Your task to perform on an android device: Play the last video I watched on Youtube Image 0: 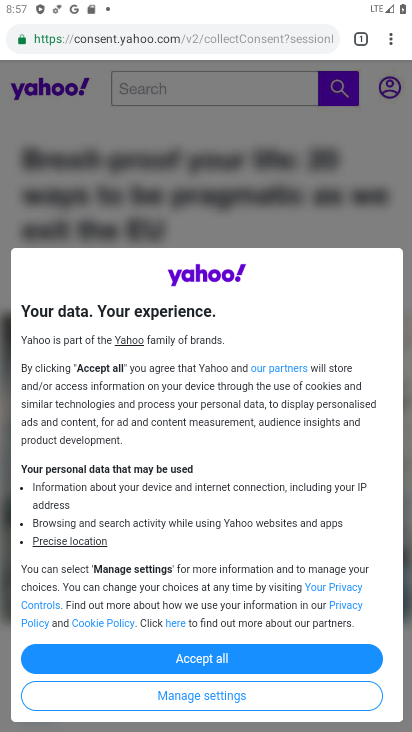
Step 0: press home button
Your task to perform on an android device: Play the last video I watched on Youtube Image 1: 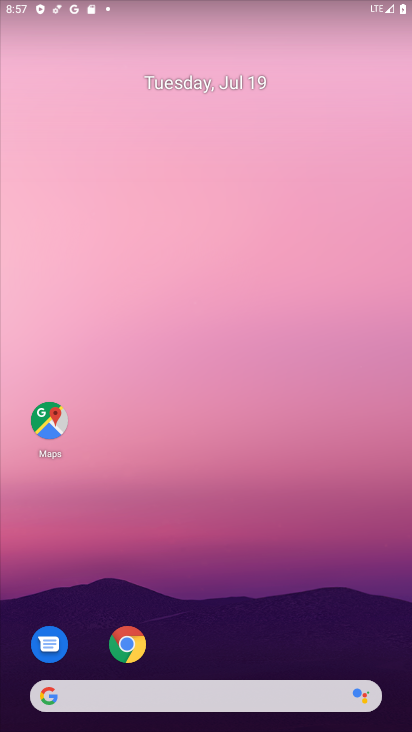
Step 1: drag from (225, 618) to (225, 234)
Your task to perform on an android device: Play the last video I watched on Youtube Image 2: 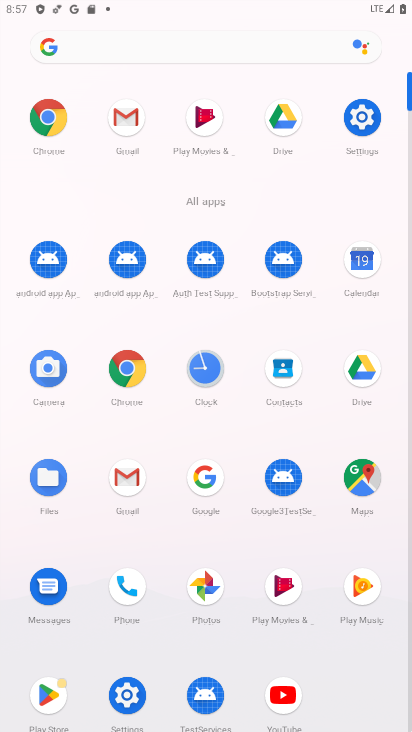
Step 2: click (280, 695)
Your task to perform on an android device: Play the last video I watched on Youtube Image 3: 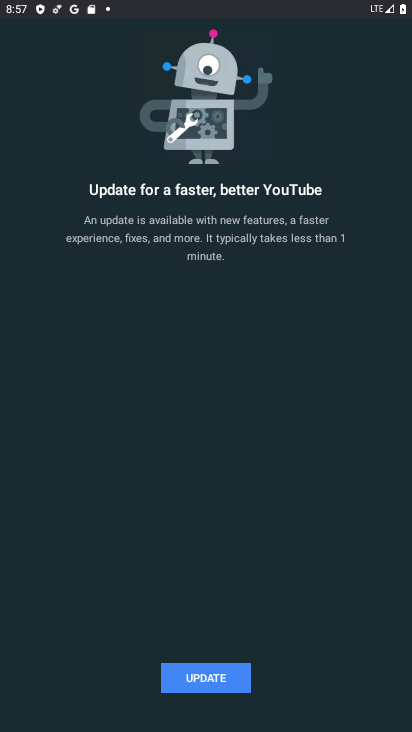
Step 3: click (184, 672)
Your task to perform on an android device: Play the last video I watched on Youtube Image 4: 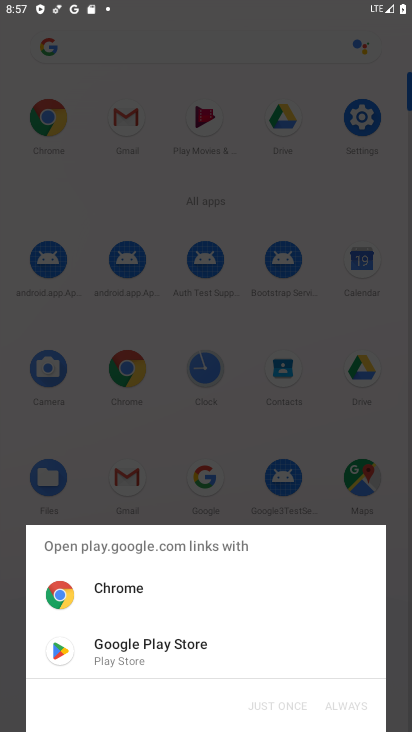
Step 4: click (175, 668)
Your task to perform on an android device: Play the last video I watched on Youtube Image 5: 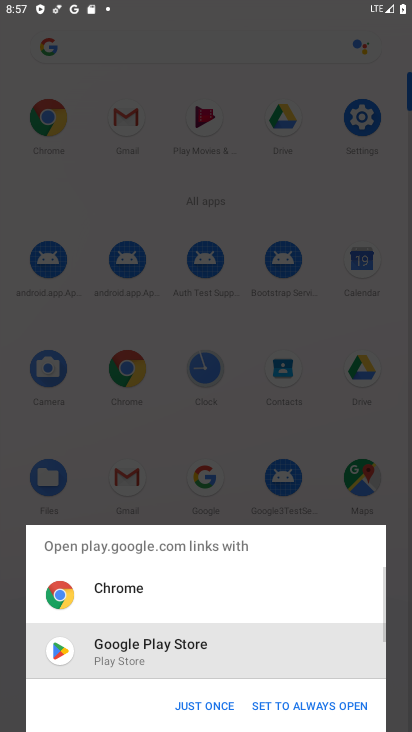
Step 5: click (203, 717)
Your task to perform on an android device: Play the last video I watched on Youtube Image 6: 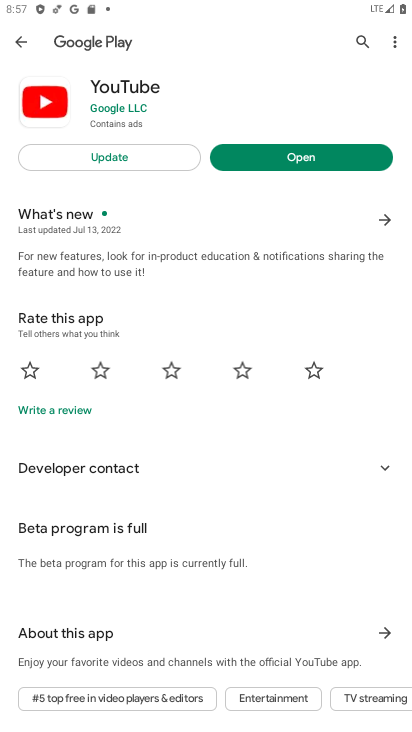
Step 6: click (67, 164)
Your task to perform on an android device: Play the last video I watched on Youtube Image 7: 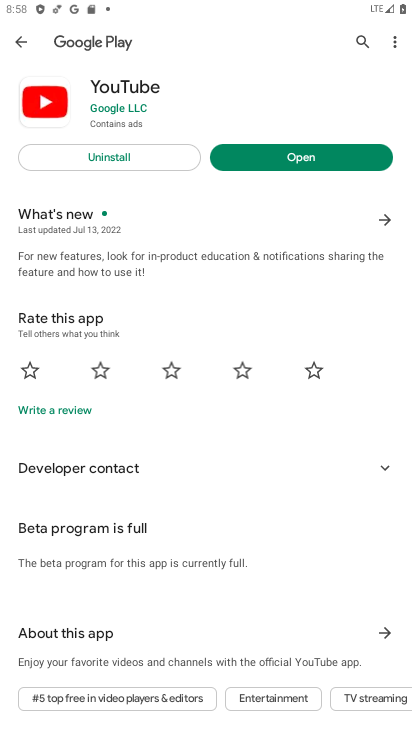
Step 7: click (279, 152)
Your task to perform on an android device: Play the last video I watched on Youtube Image 8: 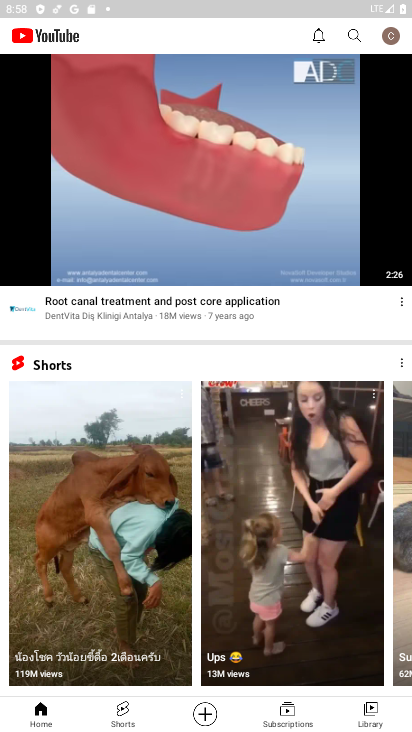
Step 8: click (376, 703)
Your task to perform on an android device: Play the last video I watched on Youtube Image 9: 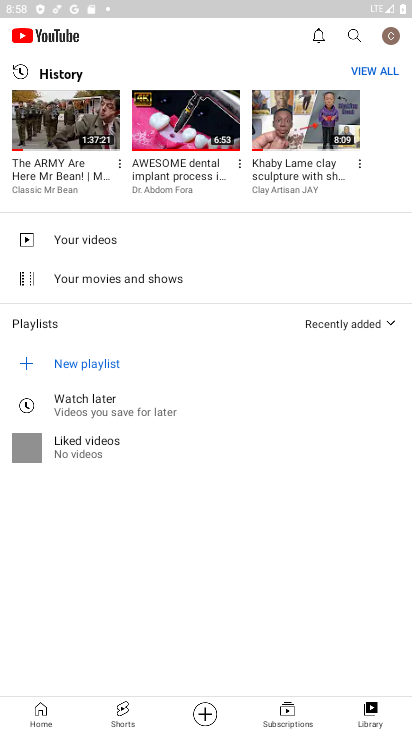
Step 9: click (83, 123)
Your task to perform on an android device: Play the last video I watched on Youtube Image 10: 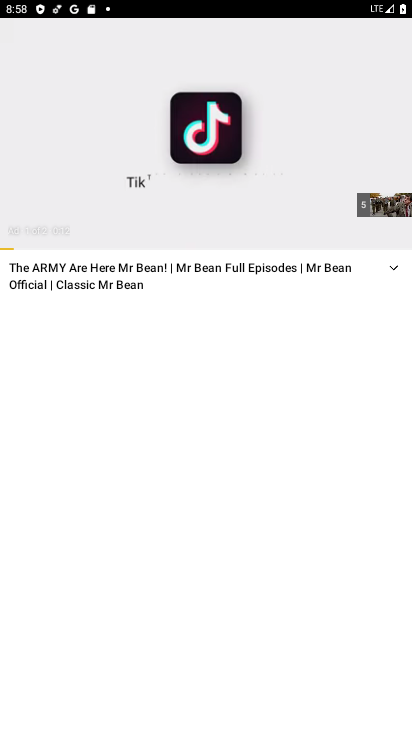
Step 10: task complete